Your task to perform on an android device: Open privacy settings Image 0: 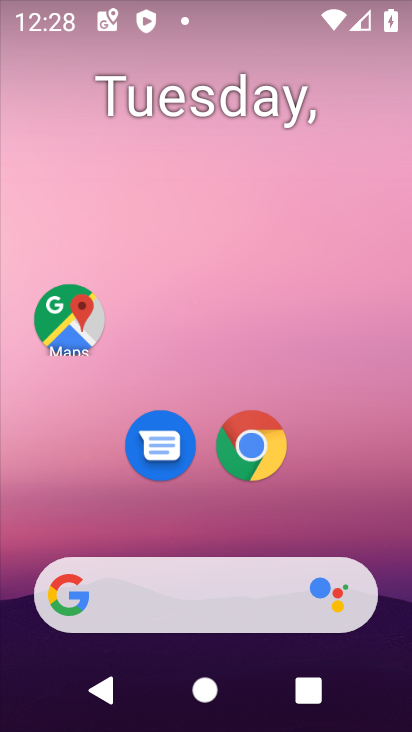
Step 0: drag from (351, 517) to (383, 70)
Your task to perform on an android device: Open privacy settings Image 1: 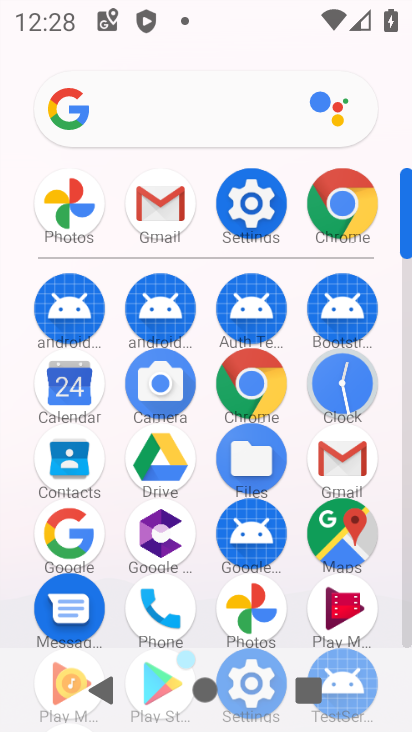
Step 1: click (250, 210)
Your task to perform on an android device: Open privacy settings Image 2: 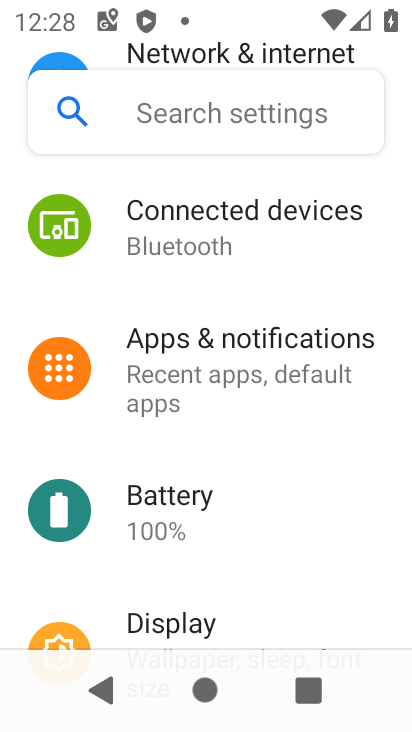
Step 2: drag from (272, 625) to (403, 93)
Your task to perform on an android device: Open privacy settings Image 3: 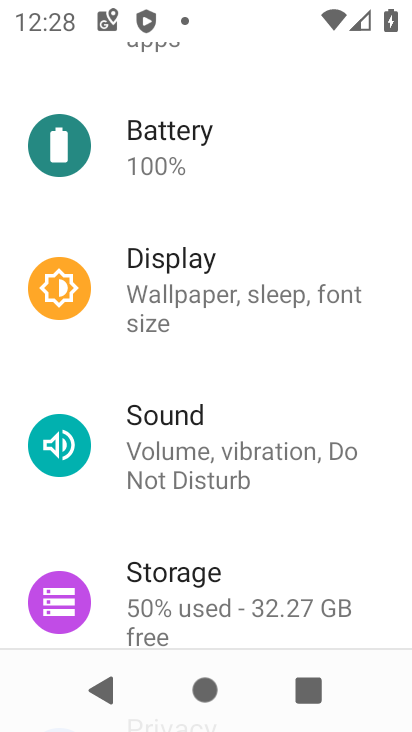
Step 3: drag from (222, 598) to (305, 170)
Your task to perform on an android device: Open privacy settings Image 4: 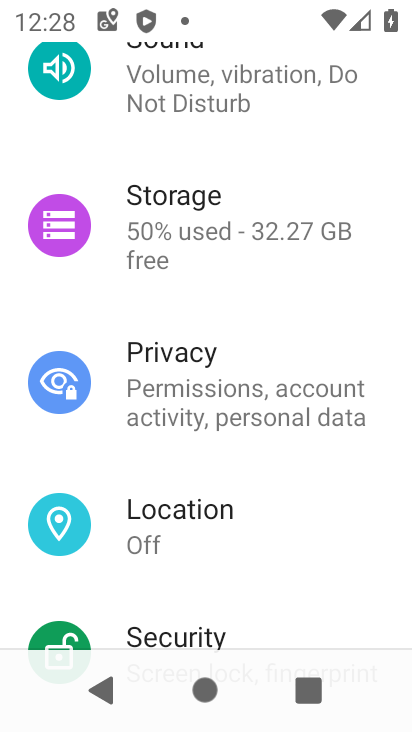
Step 4: click (215, 380)
Your task to perform on an android device: Open privacy settings Image 5: 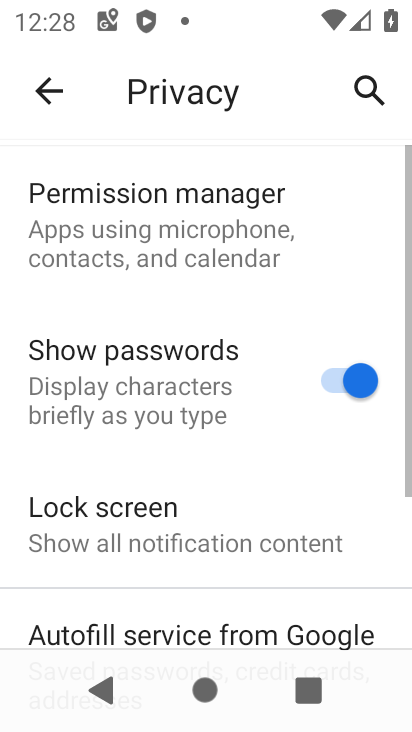
Step 5: task complete